Your task to perform on an android device: turn off sleep mode Image 0: 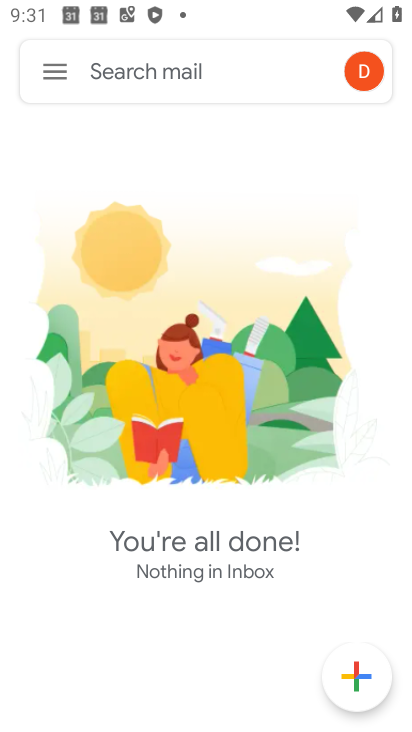
Step 0: drag from (196, 12) to (149, 639)
Your task to perform on an android device: turn off sleep mode Image 1: 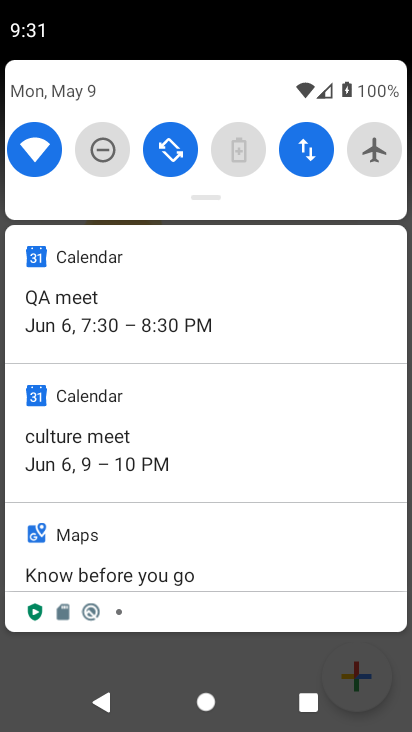
Step 1: drag from (205, 105) to (201, 621)
Your task to perform on an android device: turn off sleep mode Image 2: 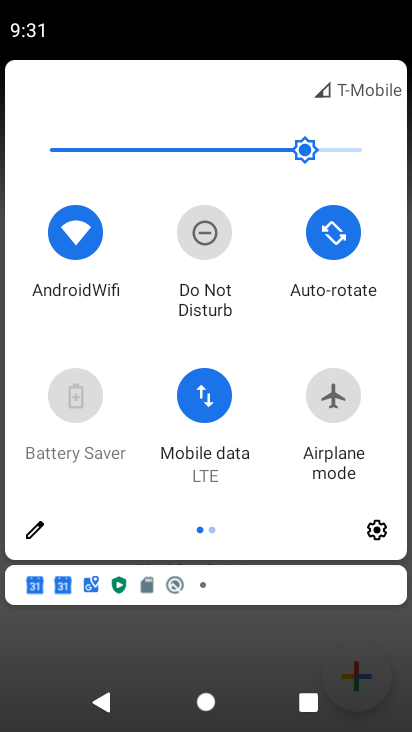
Step 2: click (379, 534)
Your task to perform on an android device: turn off sleep mode Image 3: 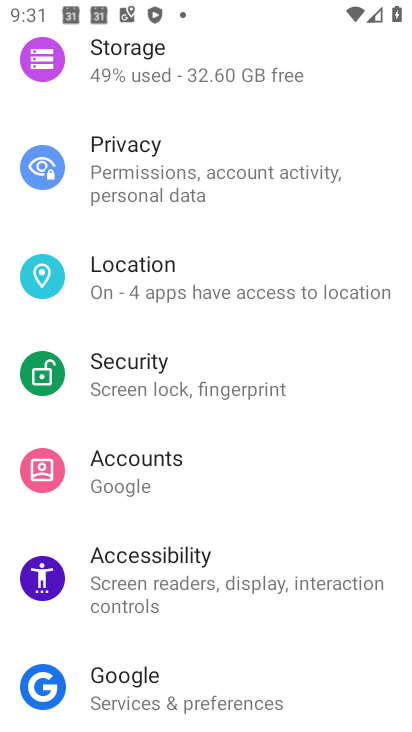
Step 3: task complete